Your task to perform on an android device: Go to settings Image 0: 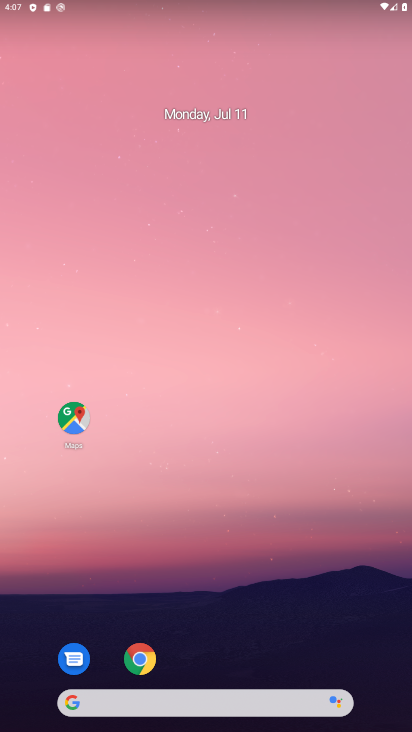
Step 0: drag from (201, 653) to (255, 189)
Your task to perform on an android device: Go to settings Image 1: 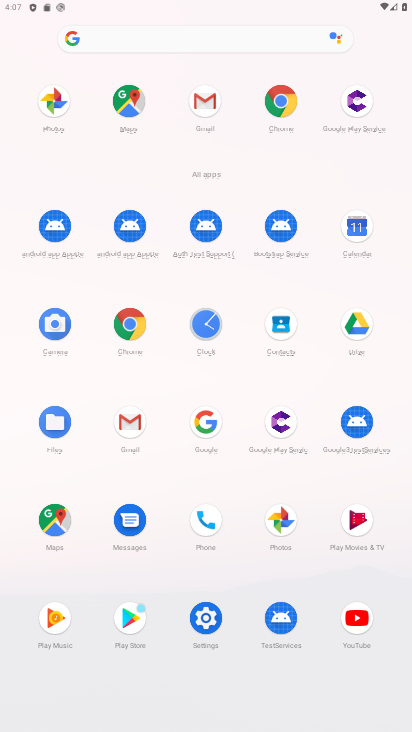
Step 1: click (203, 612)
Your task to perform on an android device: Go to settings Image 2: 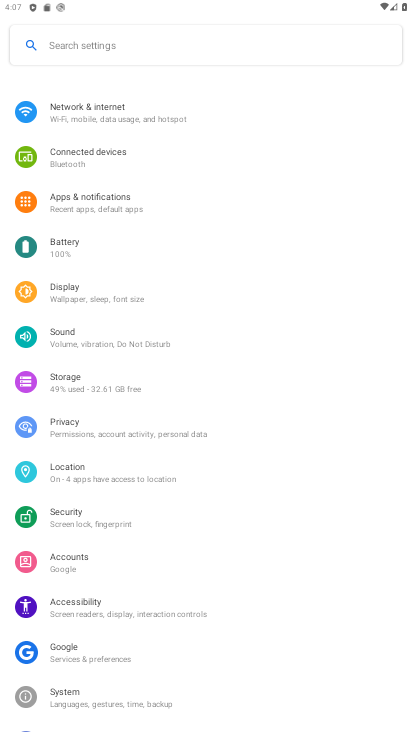
Step 2: task complete